Your task to perform on an android device: turn on javascript in the chrome app Image 0: 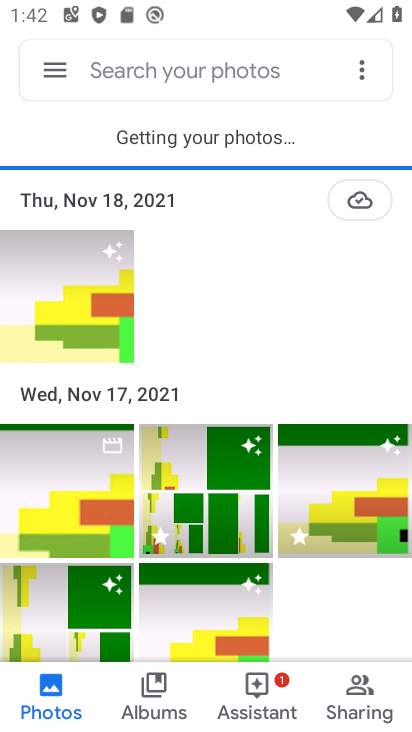
Step 0: press home button
Your task to perform on an android device: turn on javascript in the chrome app Image 1: 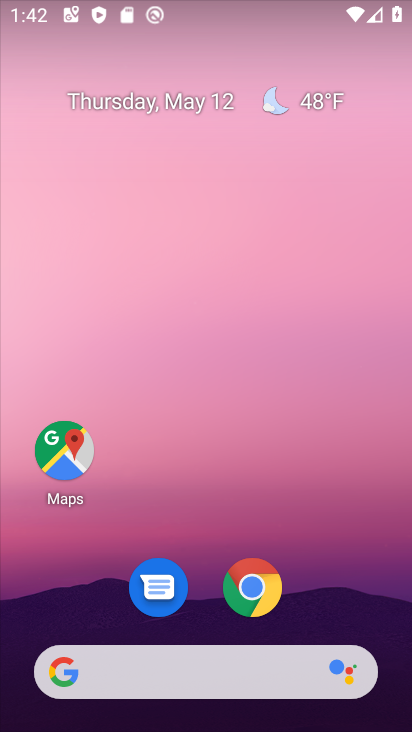
Step 1: drag from (252, 610) to (278, 170)
Your task to perform on an android device: turn on javascript in the chrome app Image 2: 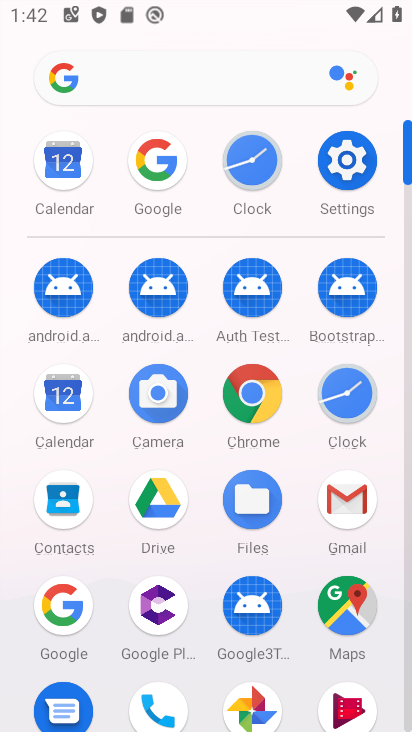
Step 2: click (252, 414)
Your task to perform on an android device: turn on javascript in the chrome app Image 3: 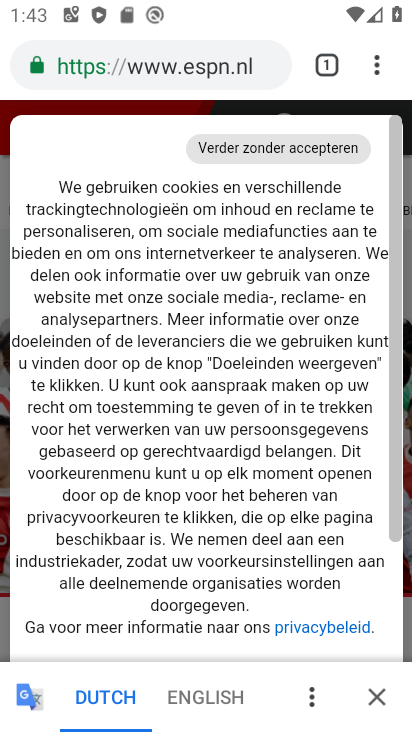
Step 3: click (378, 74)
Your task to perform on an android device: turn on javascript in the chrome app Image 4: 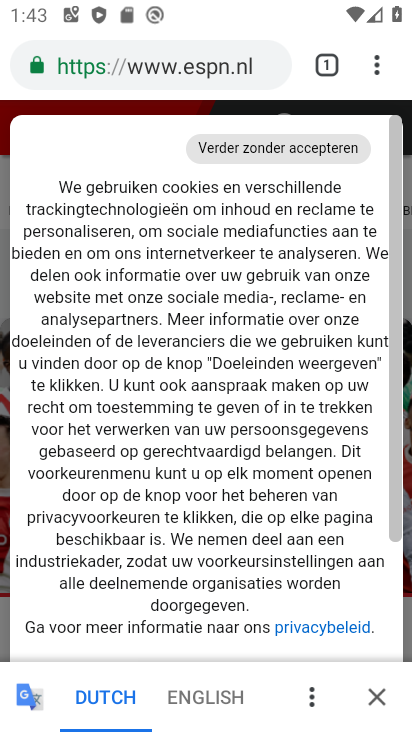
Step 4: click (382, 64)
Your task to perform on an android device: turn on javascript in the chrome app Image 5: 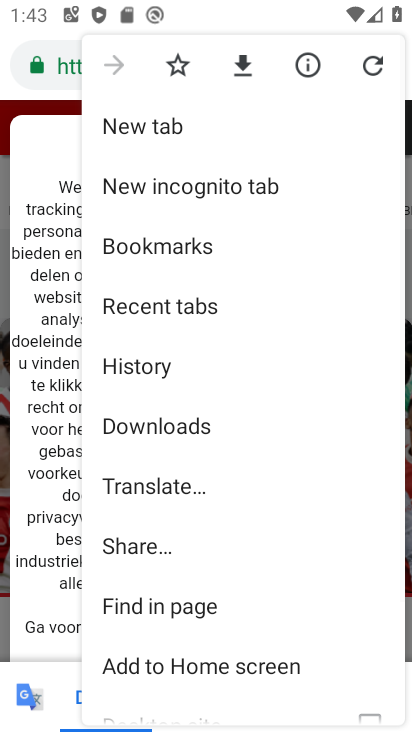
Step 5: drag from (252, 502) to (303, 171)
Your task to perform on an android device: turn on javascript in the chrome app Image 6: 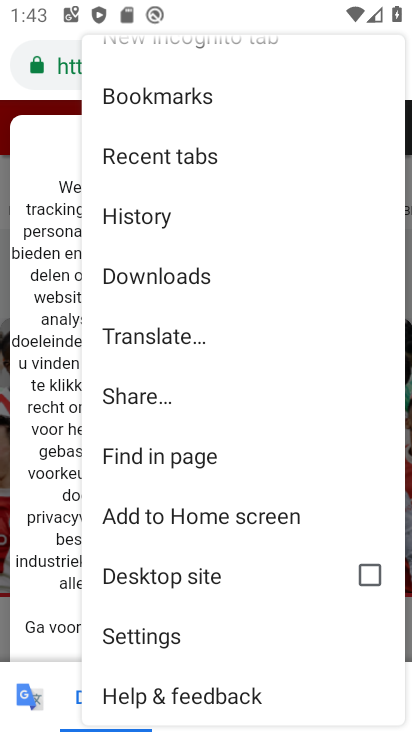
Step 6: click (194, 634)
Your task to perform on an android device: turn on javascript in the chrome app Image 7: 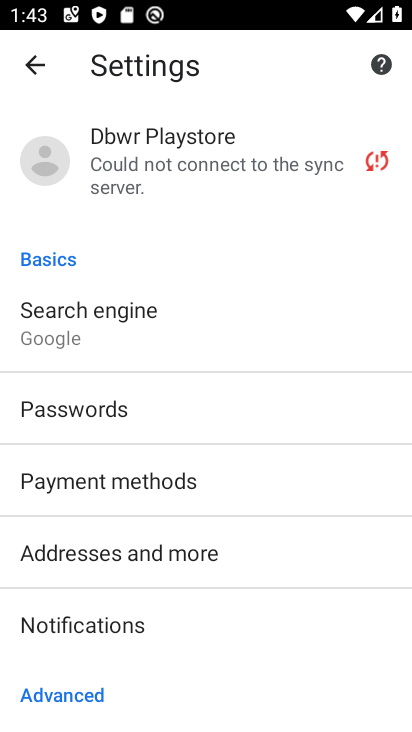
Step 7: drag from (189, 585) to (268, 158)
Your task to perform on an android device: turn on javascript in the chrome app Image 8: 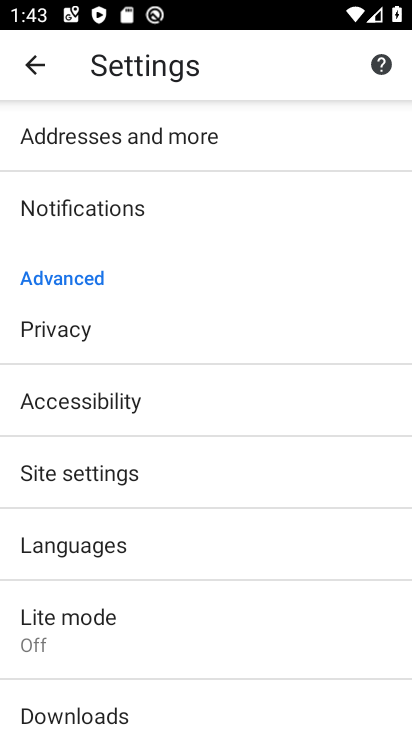
Step 8: drag from (237, 567) to (237, 443)
Your task to perform on an android device: turn on javascript in the chrome app Image 9: 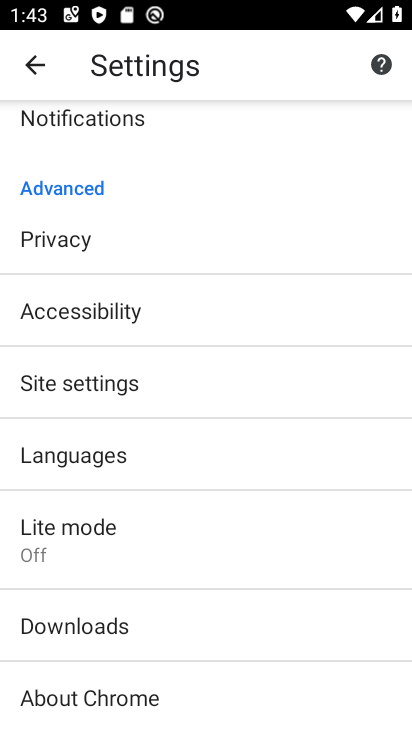
Step 9: click (128, 384)
Your task to perform on an android device: turn on javascript in the chrome app Image 10: 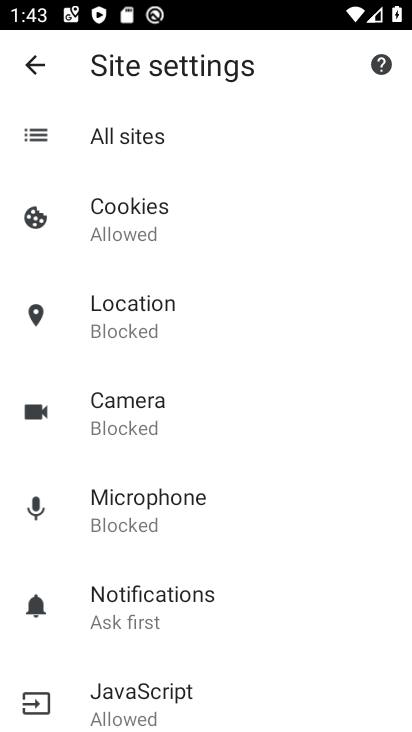
Step 10: drag from (179, 546) to (201, 367)
Your task to perform on an android device: turn on javascript in the chrome app Image 11: 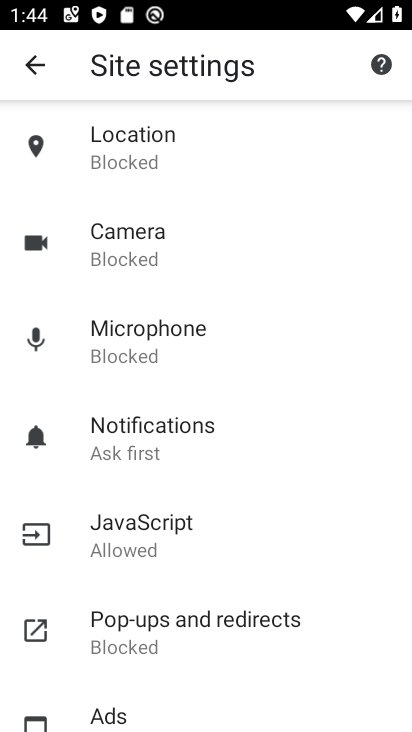
Step 11: click (181, 551)
Your task to perform on an android device: turn on javascript in the chrome app Image 12: 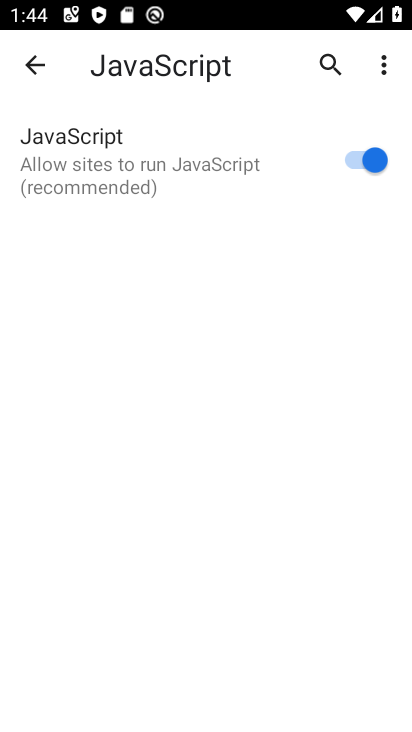
Step 12: task complete